Your task to perform on an android device: Open maps Image 0: 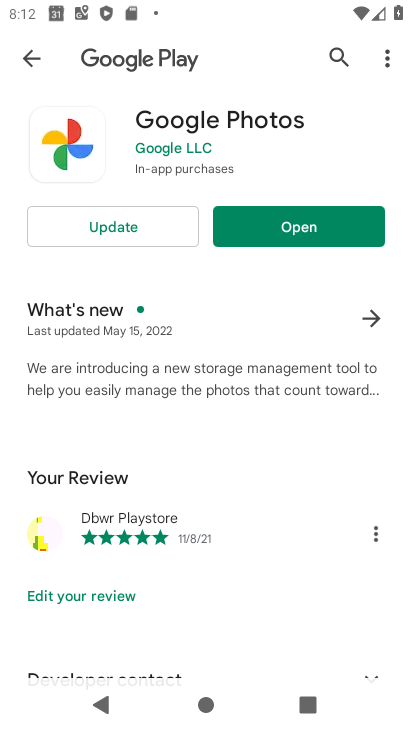
Step 0: press home button
Your task to perform on an android device: Open maps Image 1: 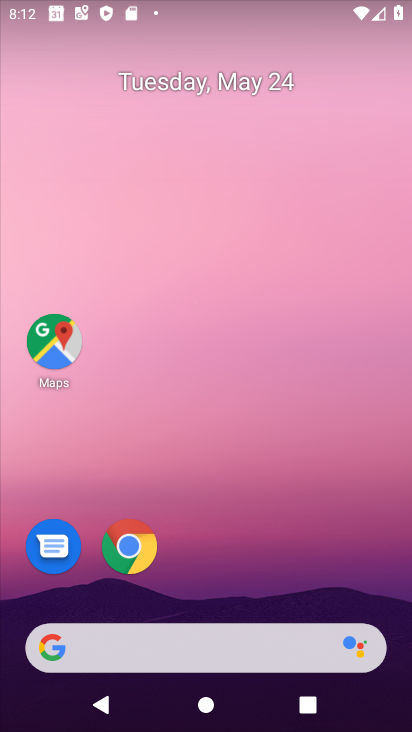
Step 1: click (51, 332)
Your task to perform on an android device: Open maps Image 2: 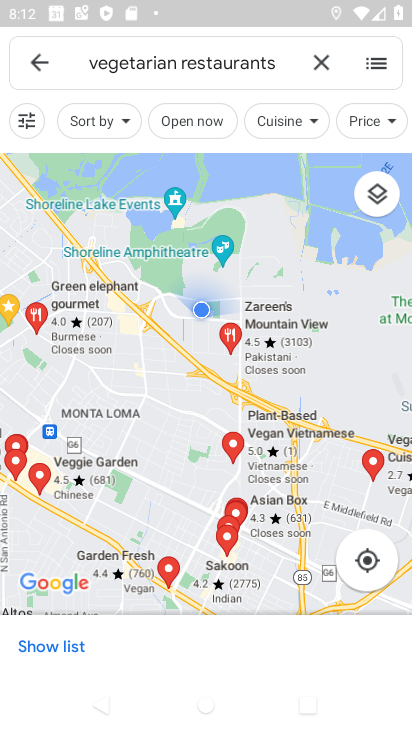
Step 2: click (317, 53)
Your task to perform on an android device: Open maps Image 3: 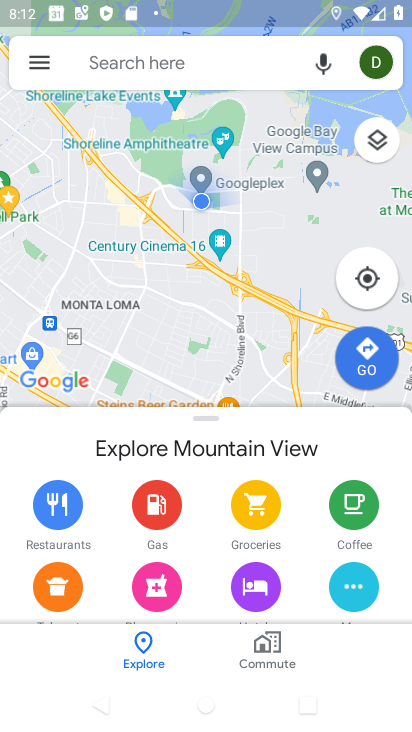
Step 3: task complete